Your task to perform on an android device: Find coffee shops on Maps Image 0: 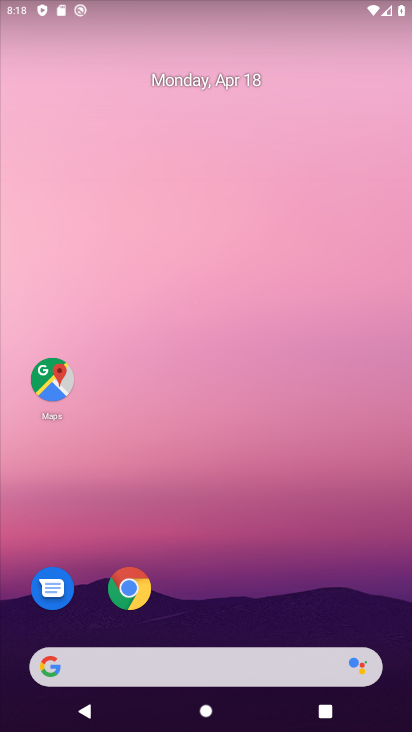
Step 0: click (61, 380)
Your task to perform on an android device: Find coffee shops on Maps Image 1: 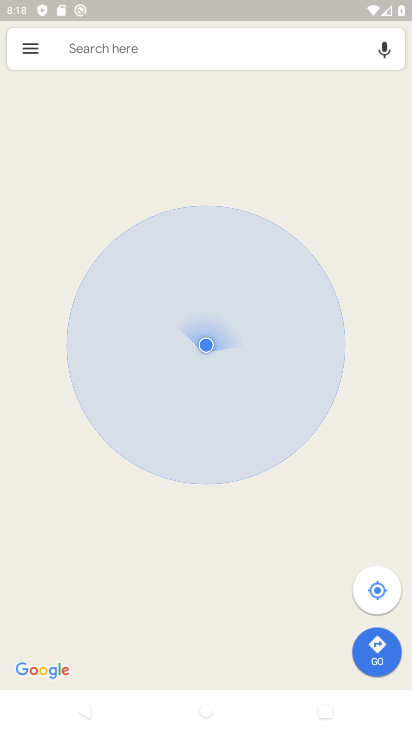
Step 1: click (199, 45)
Your task to perform on an android device: Find coffee shops on Maps Image 2: 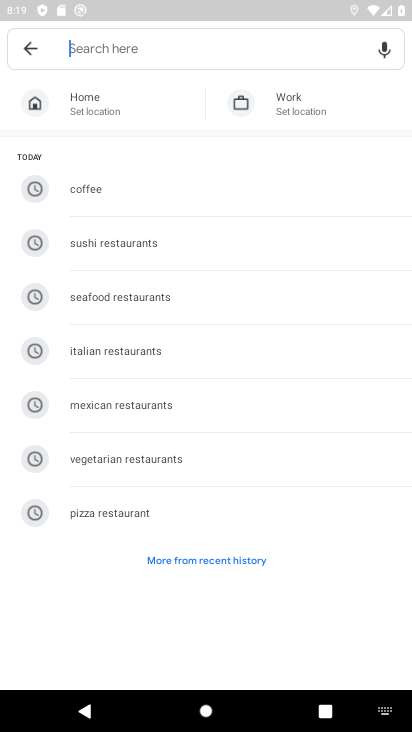
Step 2: type "coffee shops"
Your task to perform on an android device: Find coffee shops on Maps Image 3: 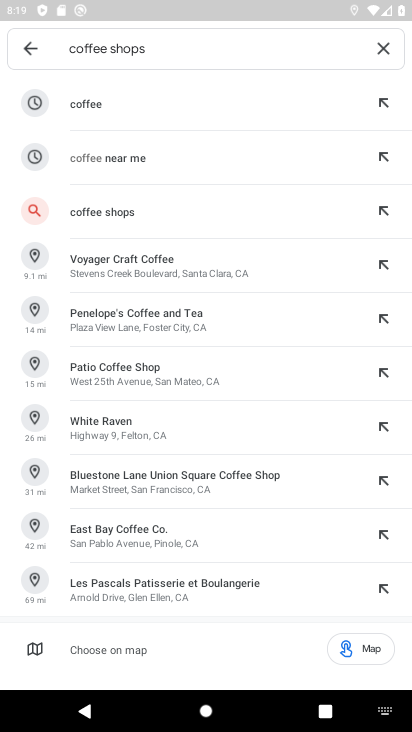
Step 3: click (111, 212)
Your task to perform on an android device: Find coffee shops on Maps Image 4: 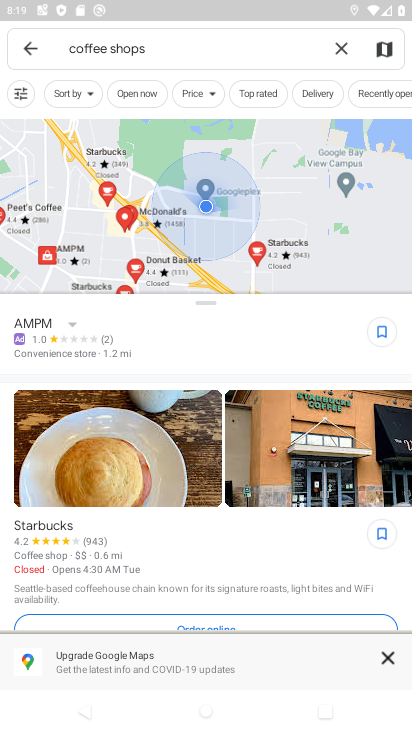
Step 4: task complete